Your task to perform on an android device: Check the news Image 0: 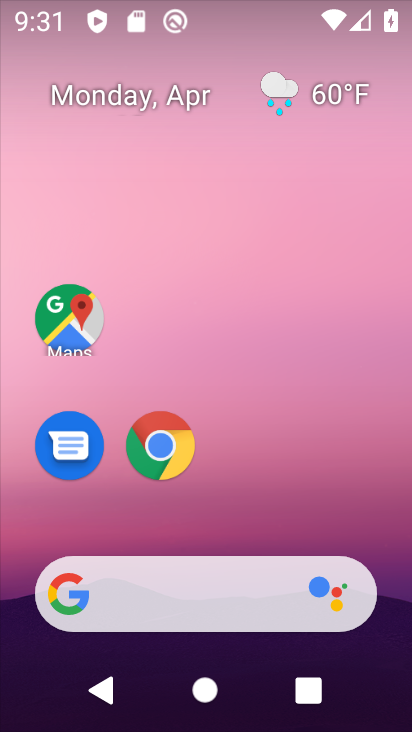
Step 0: click (73, 601)
Your task to perform on an android device: Check the news Image 1: 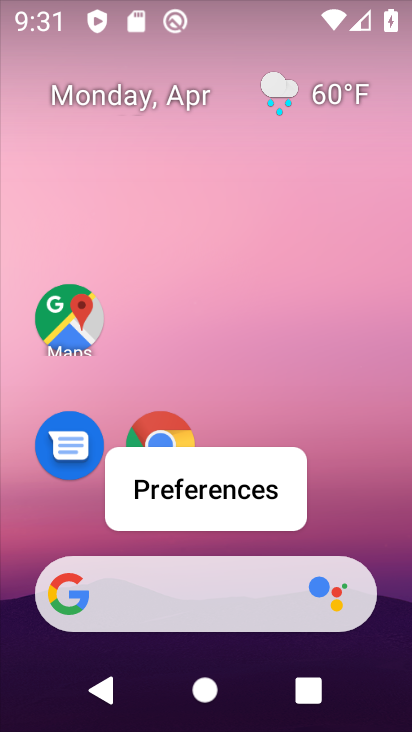
Step 1: click (71, 592)
Your task to perform on an android device: Check the news Image 2: 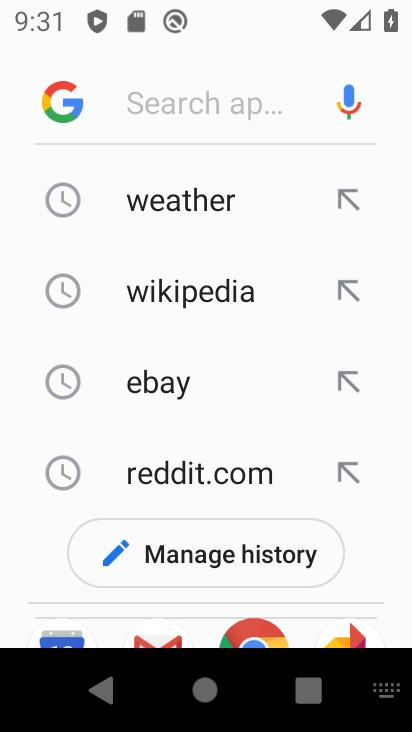
Step 2: drag from (235, 433) to (282, 185)
Your task to perform on an android device: Check the news Image 3: 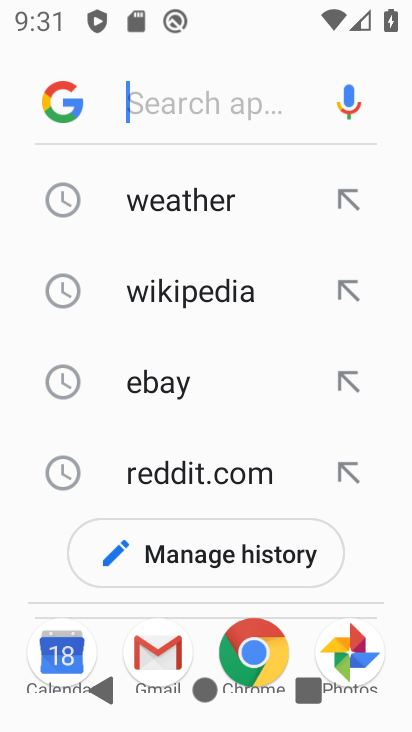
Step 3: drag from (265, 396) to (282, 229)
Your task to perform on an android device: Check the news Image 4: 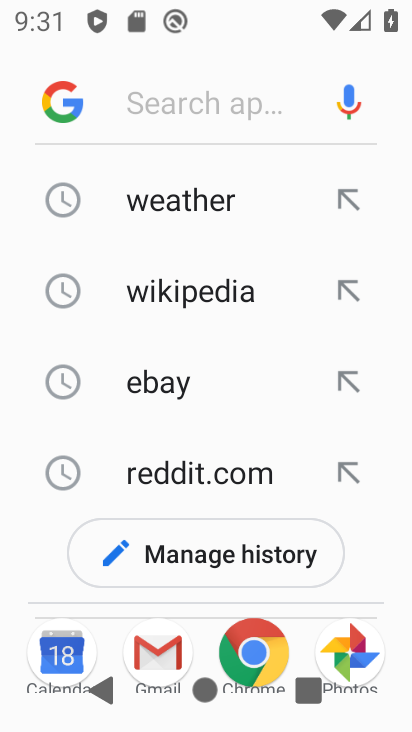
Step 4: click (63, 95)
Your task to perform on an android device: Check the news Image 5: 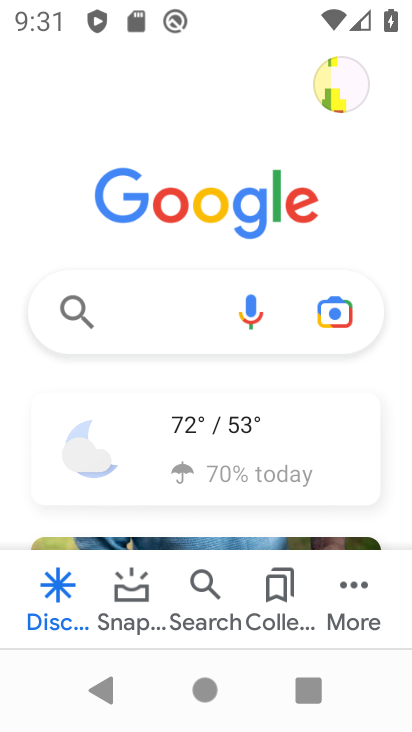
Step 5: task complete